Your task to perform on an android device: Open wifi settings Image 0: 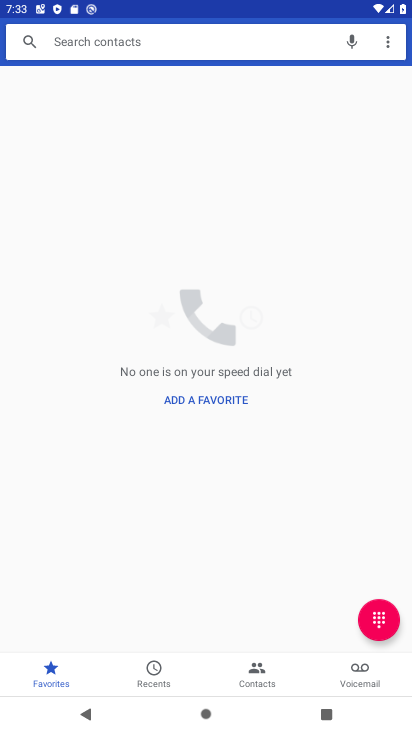
Step 0: press home button
Your task to perform on an android device: Open wifi settings Image 1: 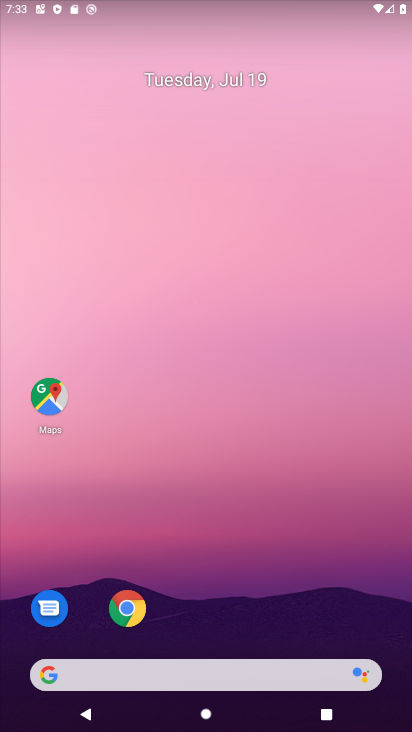
Step 1: drag from (243, 650) to (384, 208)
Your task to perform on an android device: Open wifi settings Image 2: 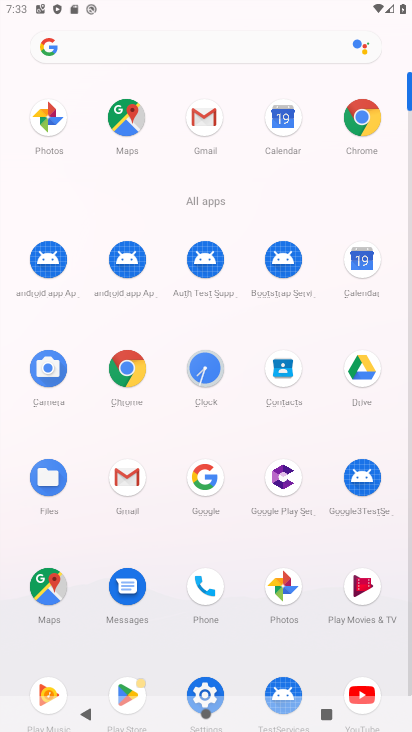
Step 2: click (202, 691)
Your task to perform on an android device: Open wifi settings Image 3: 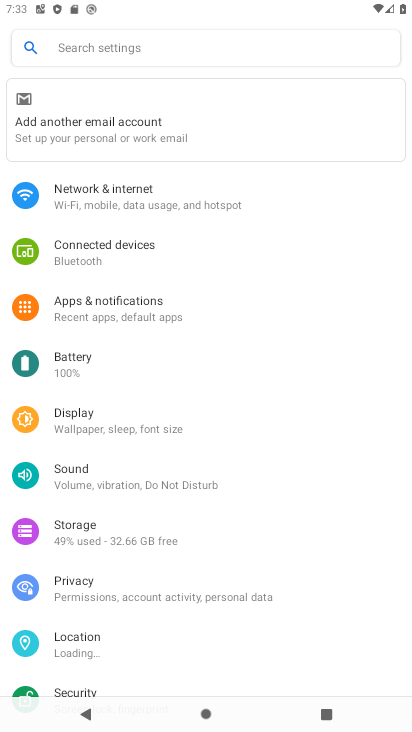
Step 3: click (141, 188)
Your task to perform on an android device: Open wifi settings Image 4: 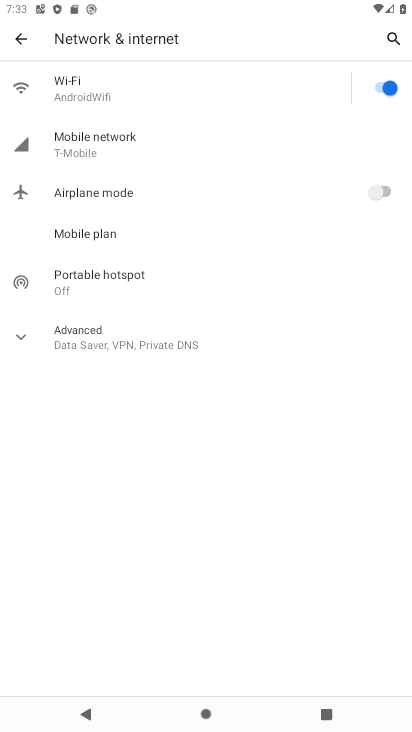
Step 4: click (101, 91)
Your task to perform on an android device: Open wifi settings Image 5: 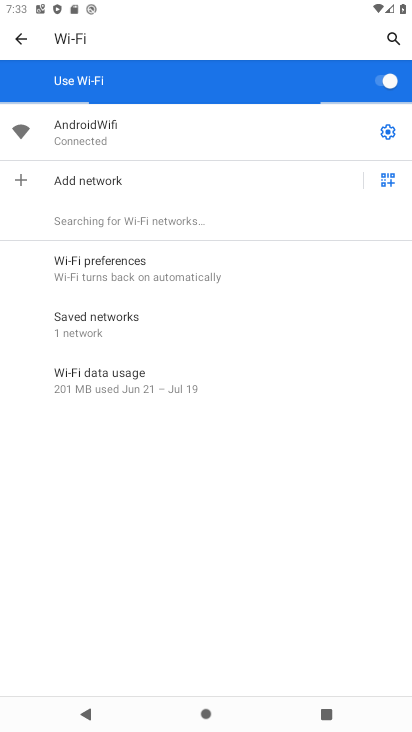
Step 5: task complete